Your task to perform on an android device: allow notifications from all sites in the chrome app Image 0: 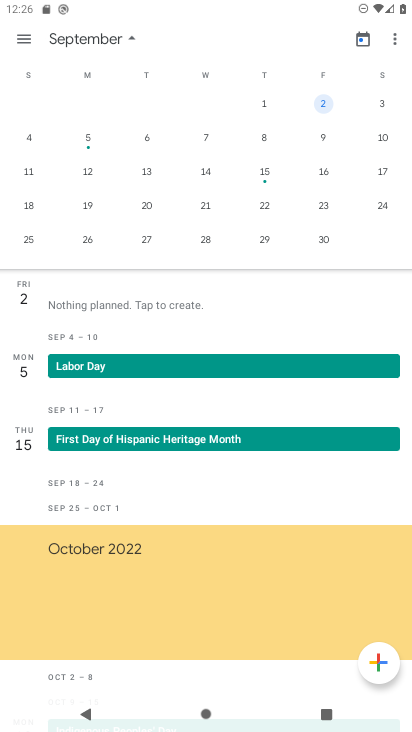
Step 0: drag from (269, 4) to (249, 646)
Your task to perform on an android device: allow notifications from all sites in the chrome app Image 1: 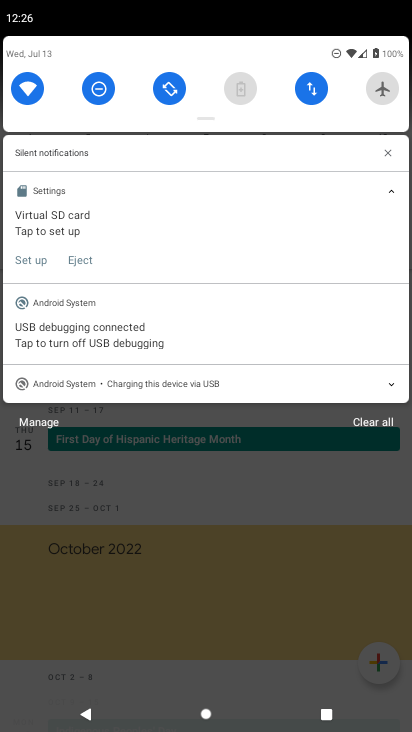
Step 1: drag from (196, 58) to (232, 608)
Your task to perform on an android device: allow notifications from all sites in the chrome app Image 2: 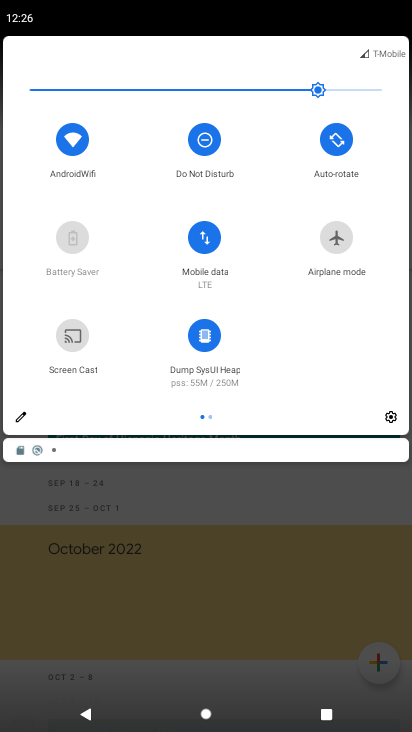
Step 2: click (389, 418)
Your task to perform on an android device: allow notifications from all sites in the chrome app Image 3: 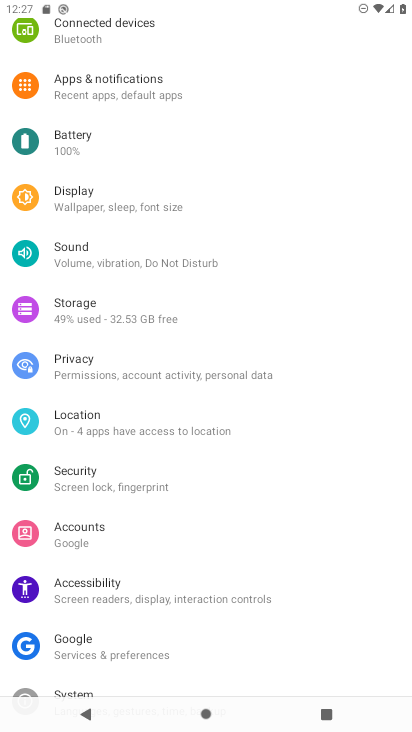
Step 3: click (134, 81)
Your task to perform on an android device: allow notifications from all sites in the chrome app Image 4: 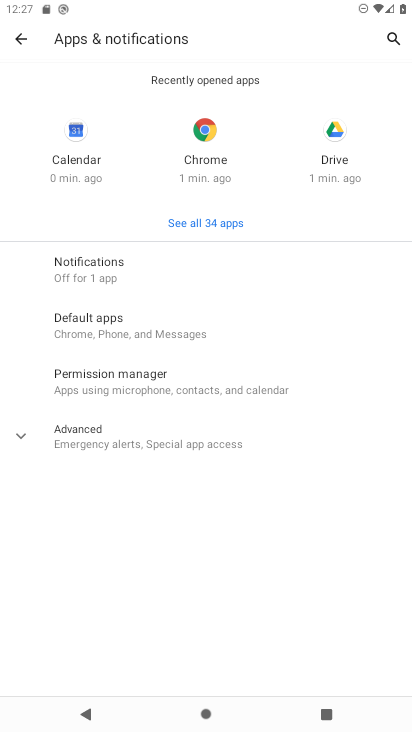
Step 4: click (137, 274)
Your task to perform on an android device: allow notifications from all sites in the chrome app Image 5: 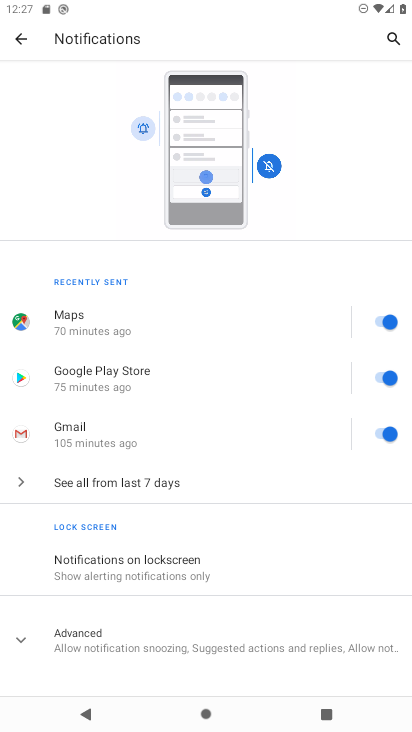
Step 5: click (119, 632)
Your task to perform on an android device: allow notifications from all sites in the chrome app Image 6: 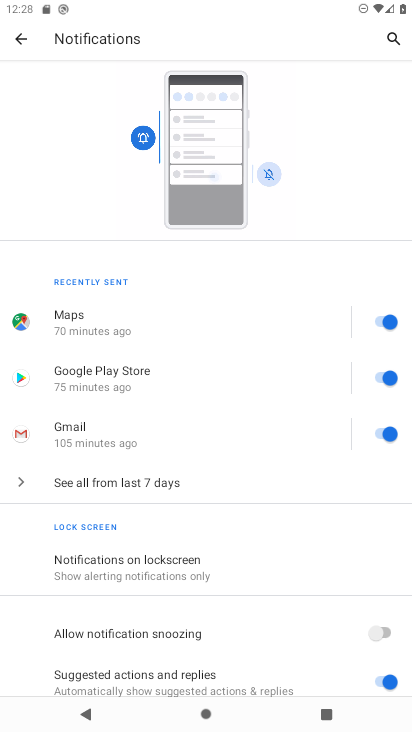
Step 6: drag from (157, 595) to (145, 327)
Your task to perform on an android device: allow notifications from all sites in the chrome app Image 7: 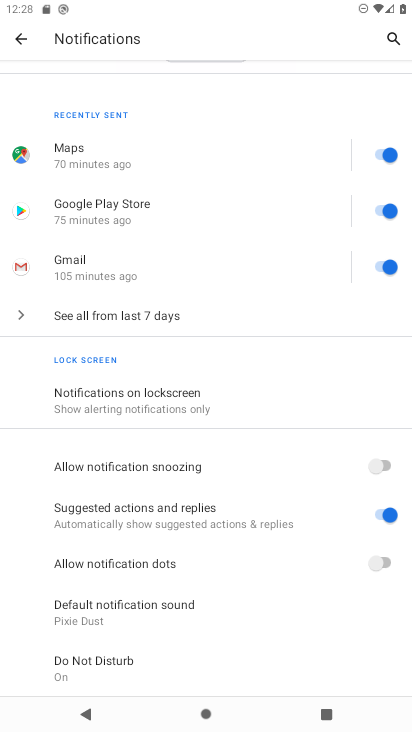
Step 7: drag from (170, 573) to (225, 134)
Your task to perform on an android device: allow notifications from all sites in the chrome app Image 8: 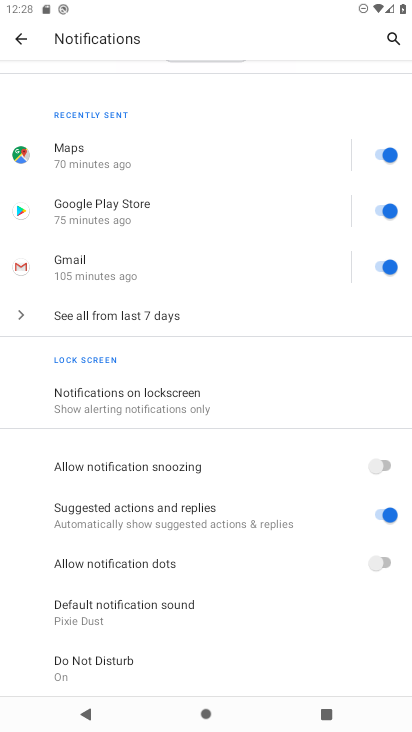
Step 8: click (105, 257)
Your task to perform on an android device: allow notifications from all sites in the chrome app Image 9: 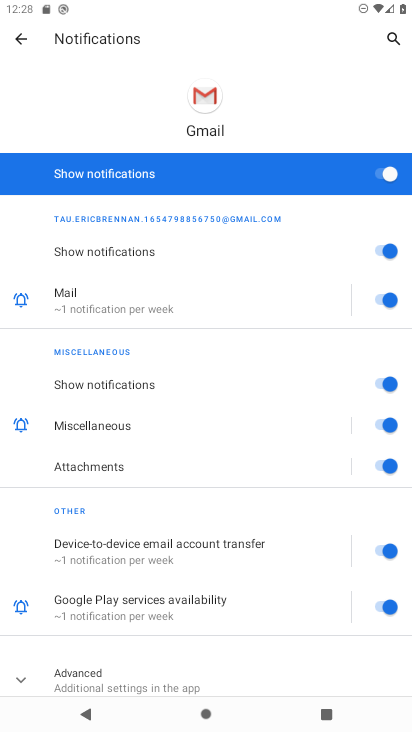
Step 9: drag from (165, 630) to (172, 177)
Your task to perform on an android device: allow notifications from all sites in the chrome app Image 10: 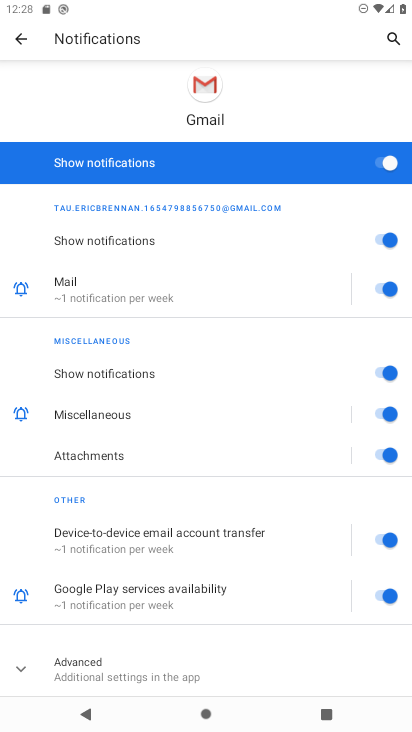
Step 10: click (256, 681)
Your task to perform on an android device: allow notifications from all sites in the chrome app Image 11: 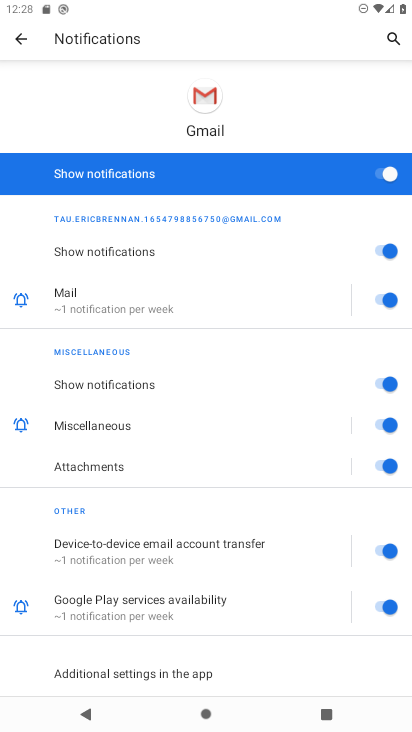
Step 11: task complete